Your task to perform on an android device: Open the map Image 0: 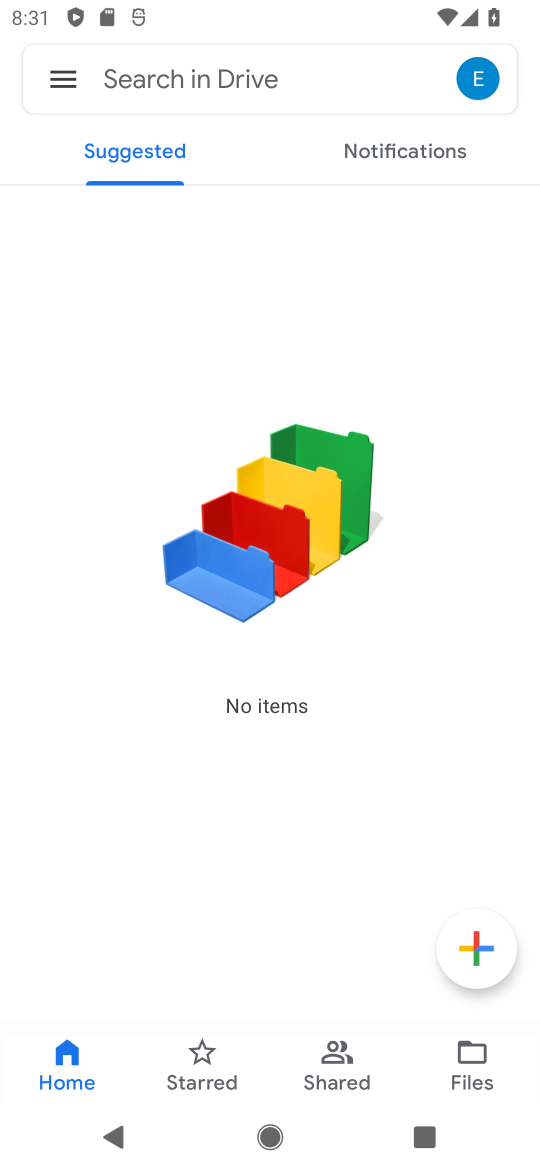
Step 0: press home button
Your task to perform on an android device: Open the map Image 1: 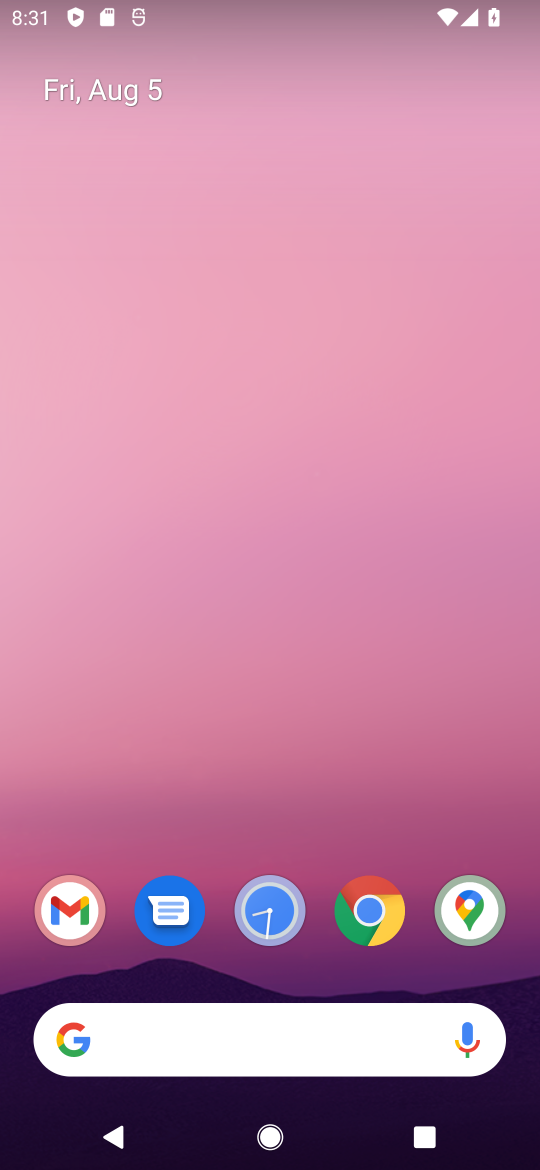
Step 1: drag from (306, 896) to (445, 301)
Your task to perform on an android device: Open the map Image 2: 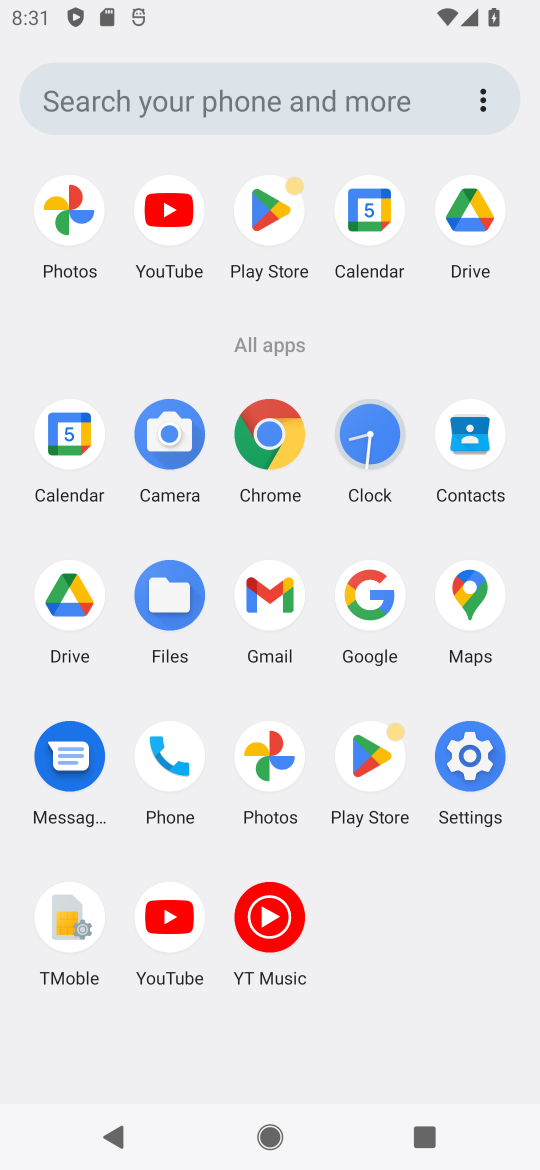
Step 2: click (467, 586)
Your task to perform on an android device: Open the map Image 3: 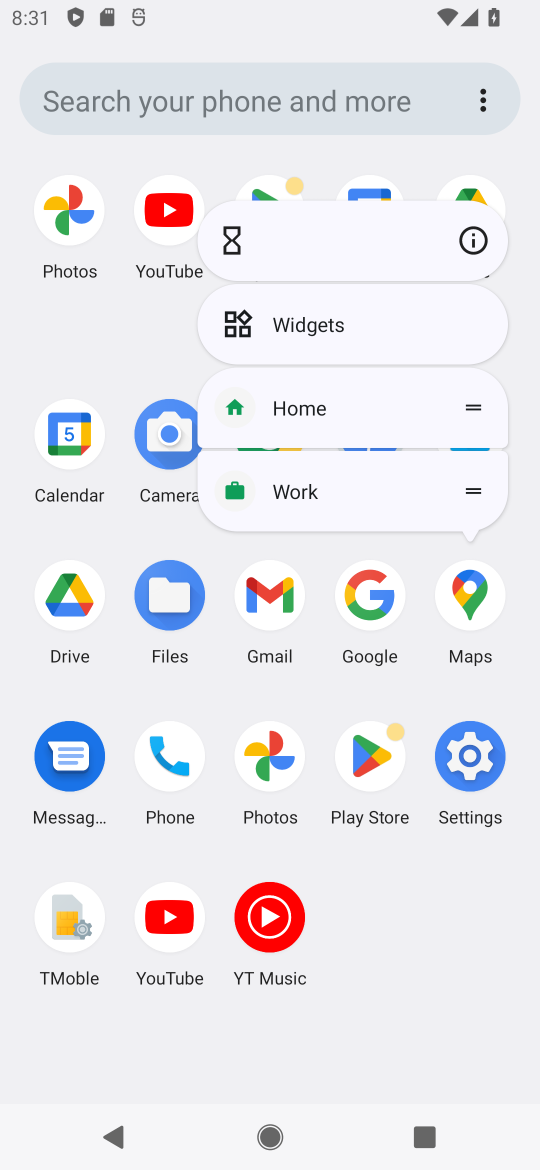
Step 3: click (468, 584)
Your task to perform on an android device: Open the map Image 4: 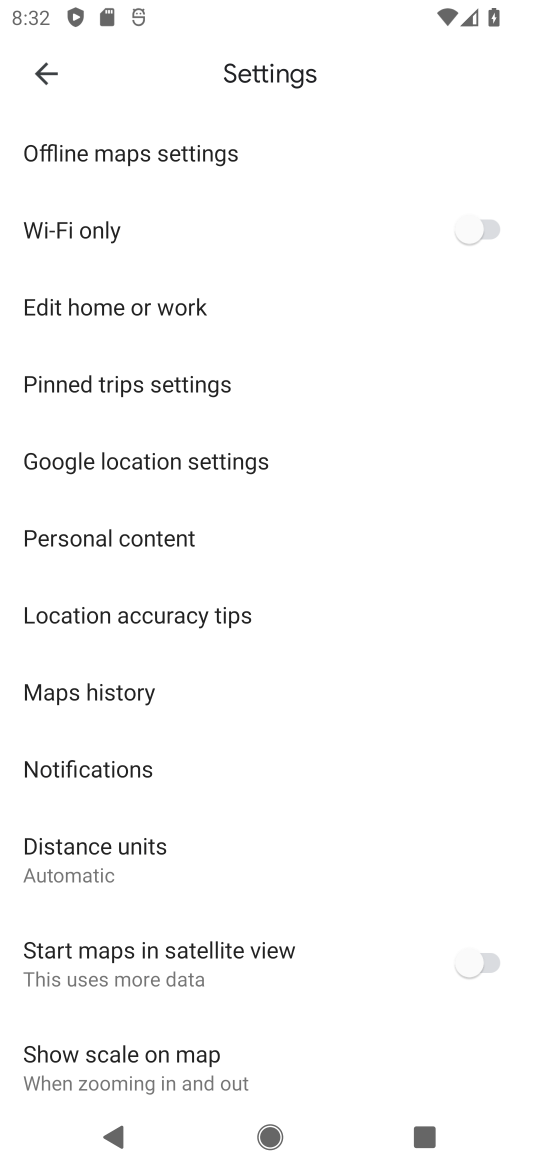
Step 4: click (46, 71)
Your task to perform on an android device: Open the map Image 5: 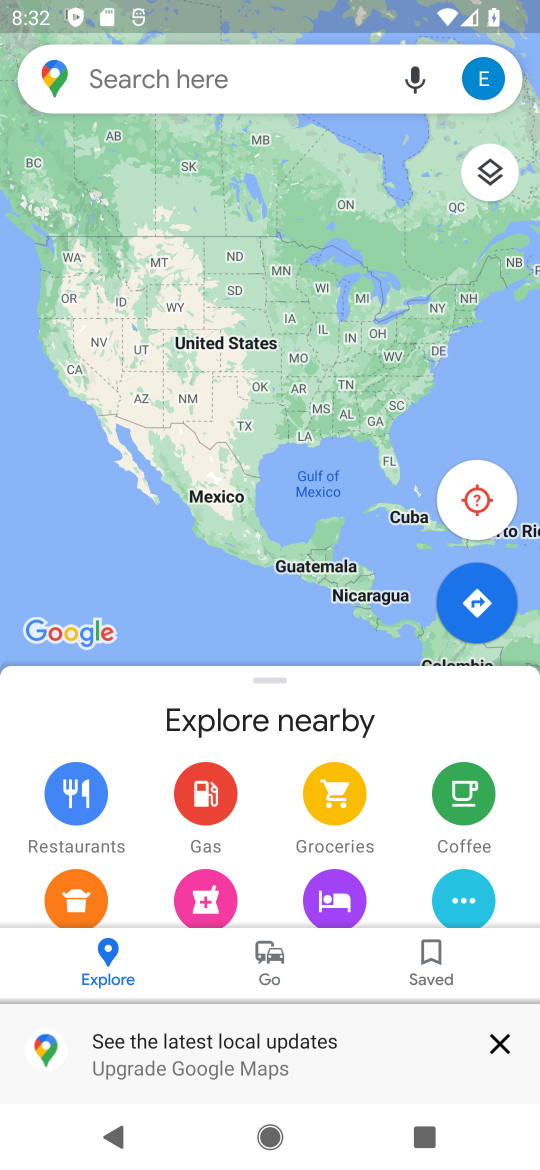
Step 5: task complete